Your task to perform on an android device: delete a single message in the gmail app Image 0: 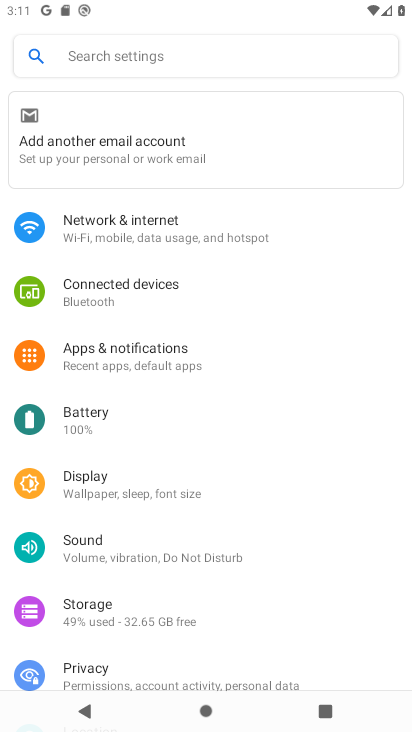
Step 0: press home button
Your task to perform on an android device: delete a single message in the gmail app Image 1: 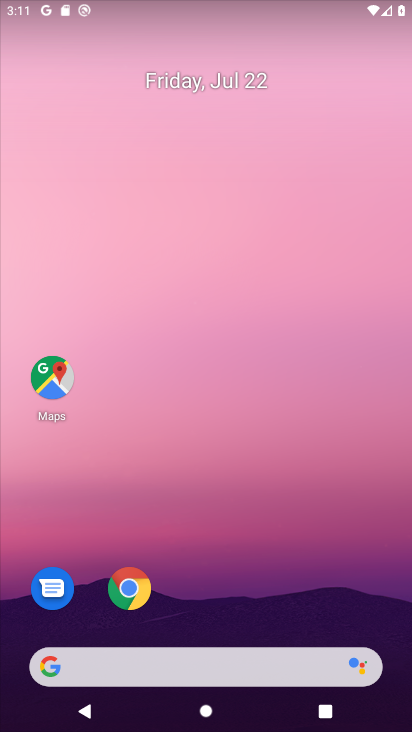
Step 1: drag from (247, 590) to (245, 200)
Your task to perform on an android device: delete a single message in the gmail app Image 2: 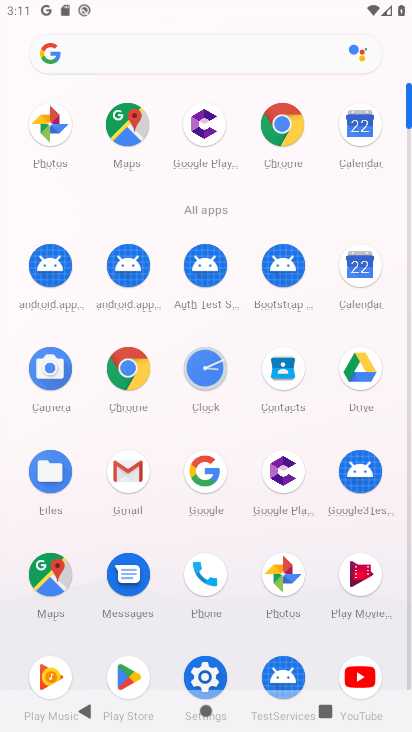
Step 2: click (123, 463)
Your task to perform on an android device: delete a single message in the gmail app Image 3: 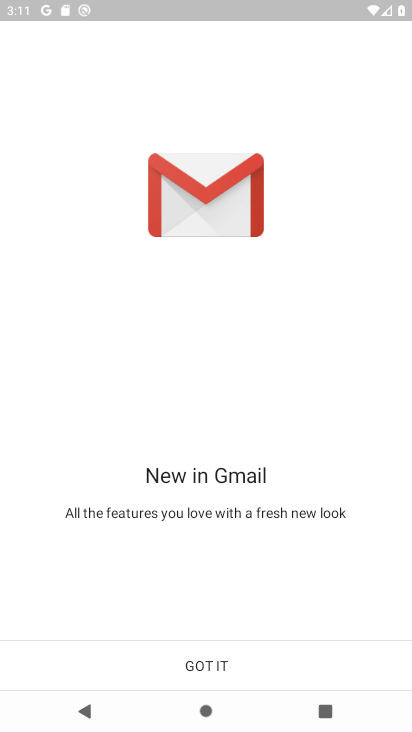
Step 3: click (198, 663)
Your task to perform on an android device: delete a single message in the gmail app Image 4: 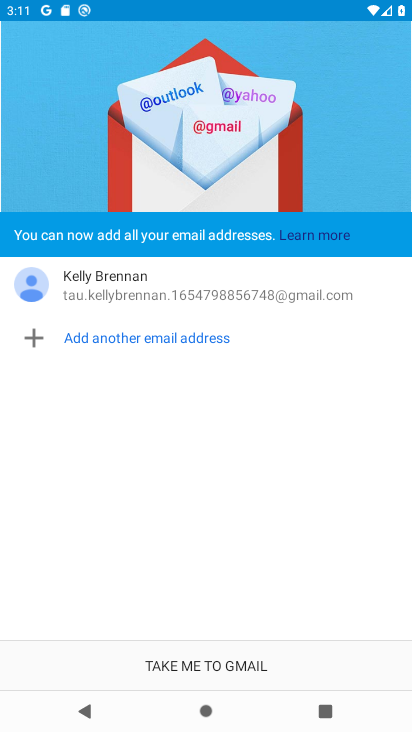
Step 4: click (198, 663)
Your task to perform on an android device: delete a single message in the gmail app Image 5: 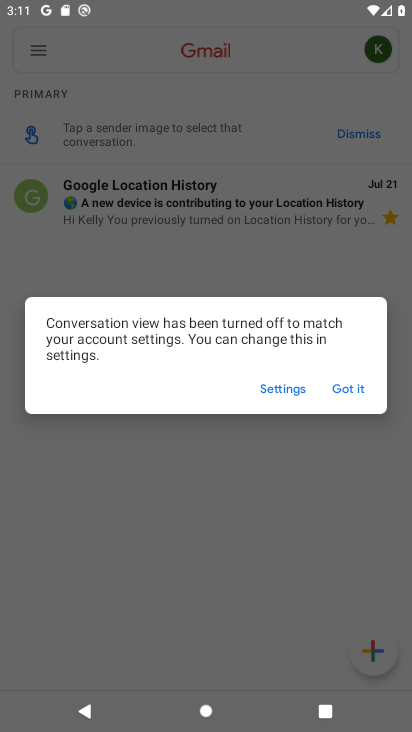
Step 5: click (341, 377)
Your task to perform on an android device: delete a single message in the gmail app Image 6: 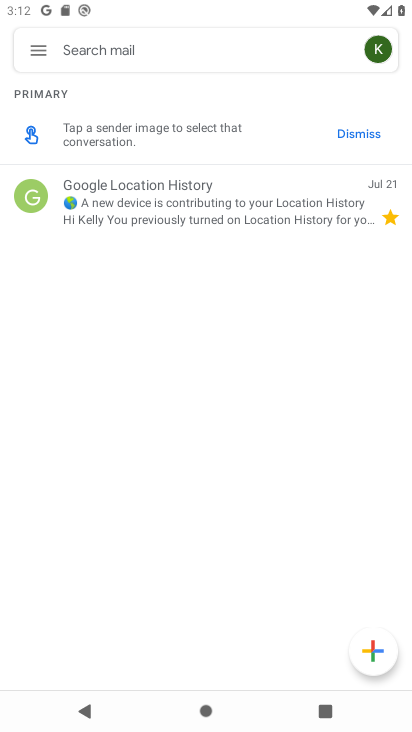
Step 6: click (14, 193)
Your task to perform on an android device: delete a single message in the gmail app Image 7: 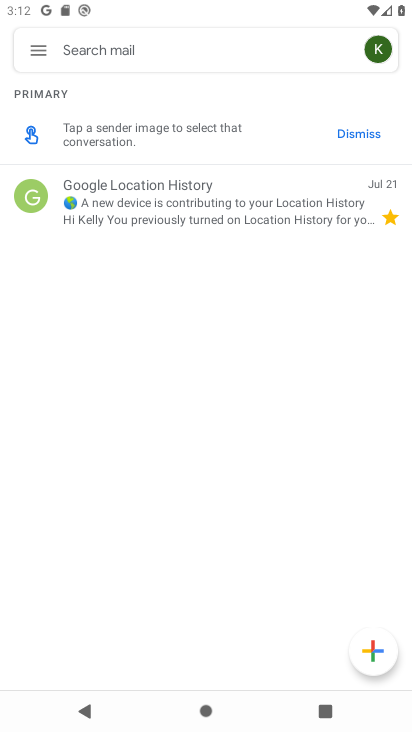
Step 7: click (32, 193)
Your task to perform on an android device: delete a single message in the gmail app Image 8: 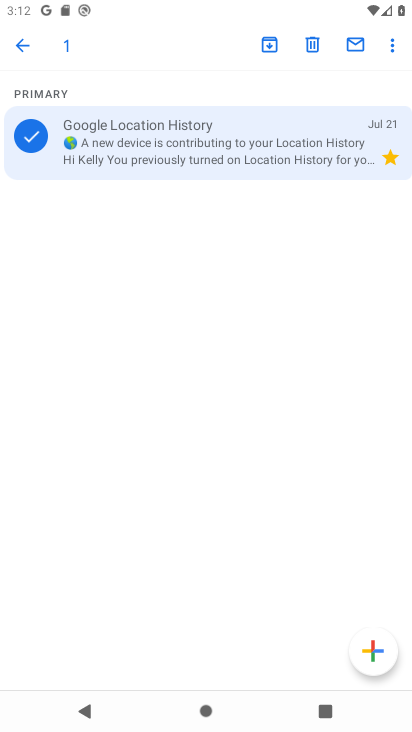
Step 8: click (306, 42)
Your task to perform on an android device: delete a single message in the gmail app Image 9: 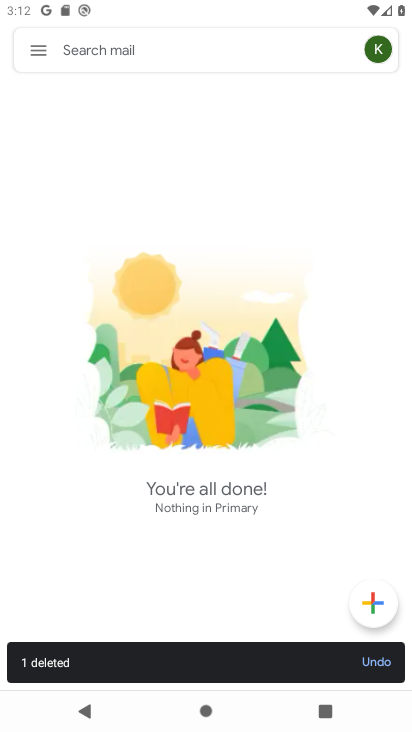
Step 9: task complete